Your task to perform on an android device: Search for the best Nike running shoes on Nike.com Image 0: 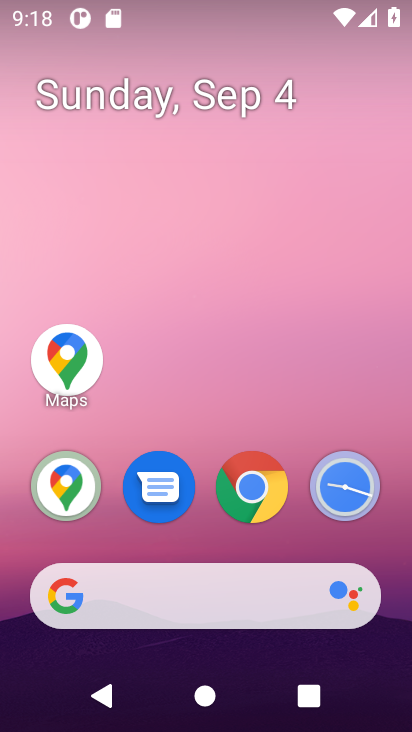
Step 0: click (95, 361)
Your task to perform on an android device: Search for the best Nike running shoes on Nike.com Image 1: 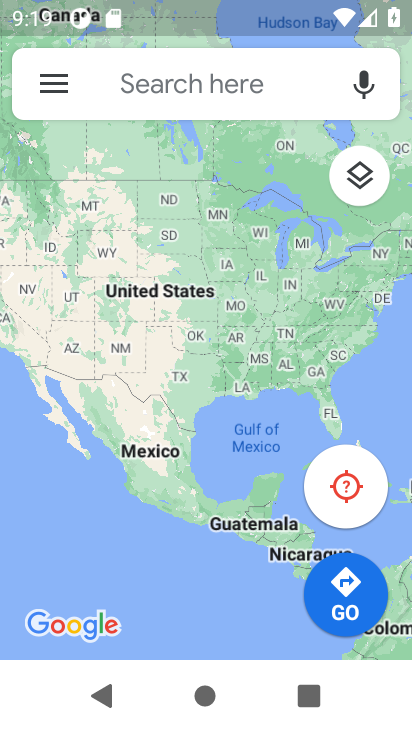
Step 1: task complete